Your task to perform on an android device: check battery use Image 0: 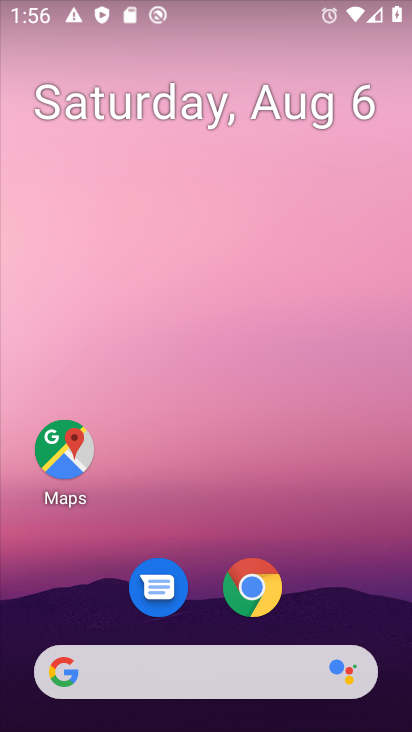
Step 0: drag from (194, 523) to (194, 196)
Your task to perform on an android device: check battery use Image 1: 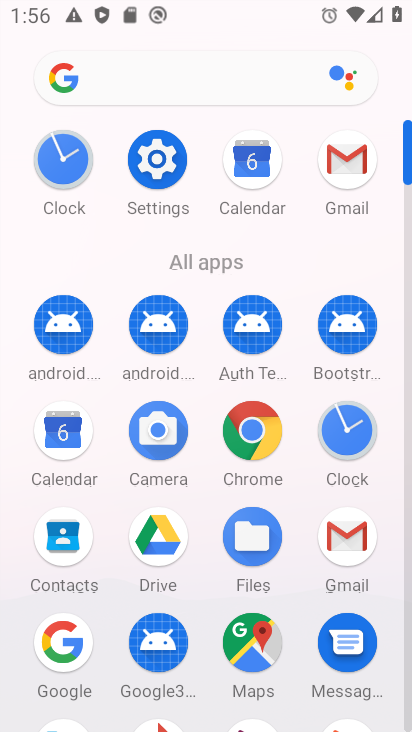
Step 1: click (155, 162)
Your task to perform on an android device: check battery use Image 2: 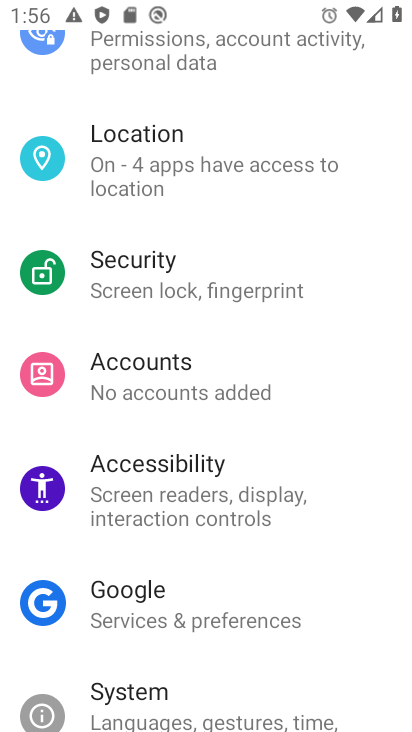
Step 2: drag from (203, 206) to (222, 491)
Your task to perform on an android device: check battery use Image 3: 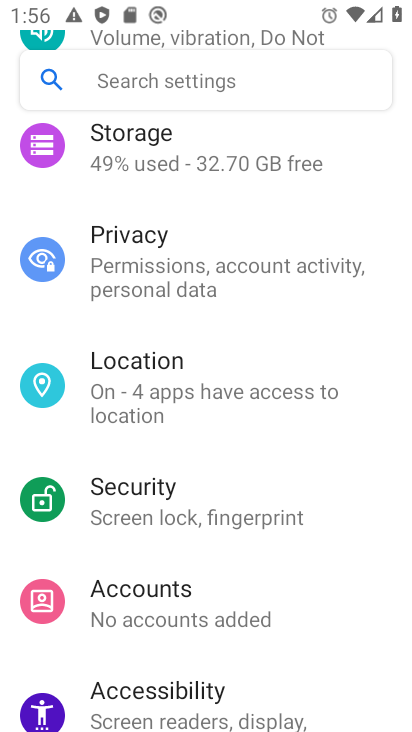
Step 3: drag from (219, 253) to (219, 438)
Your task to perform on an android device: check battery use Image 4: 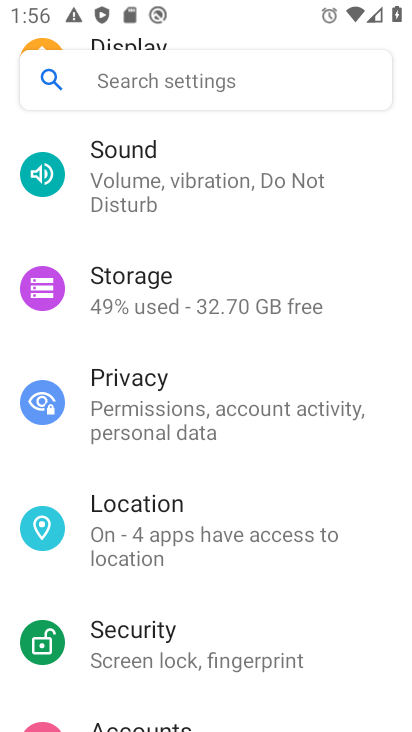
Step 4: drag from (202, 251) to (202, 504)
Your task to perform on an android device: check battery use Image 5: 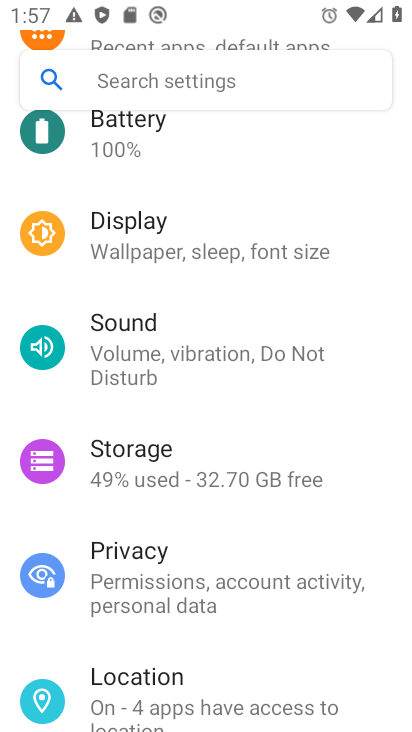
Step 5: click (162, 148)
Your task to perform on an android device: check battery use Image 6: 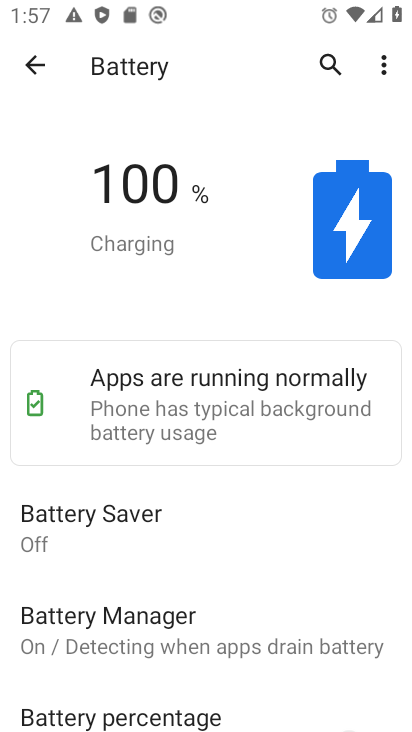
Step 6: click (376, 51)
Your task to perform on an android device: check battery use Image 7: 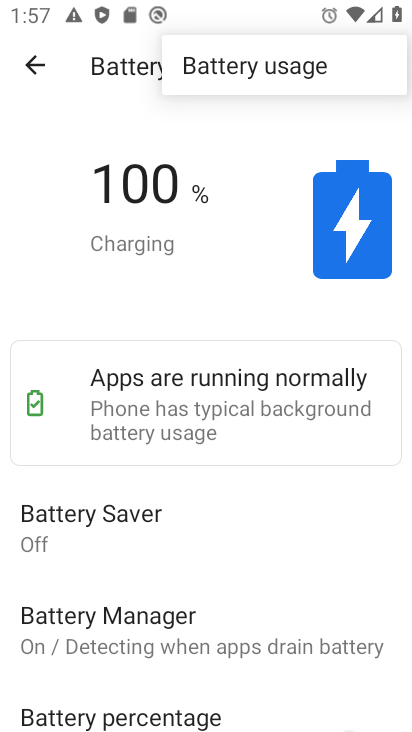
Step 7: click (278, 76)
Your task to perform on an android device: check battery use Image 8: 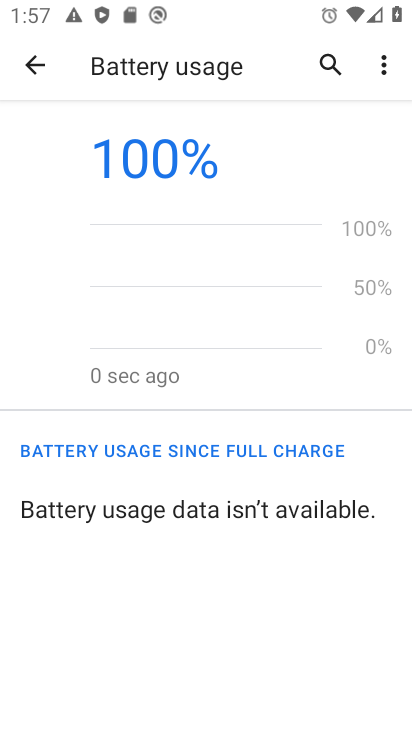
Step 8: task complete